Your task to perform on an android device: Open settings on Google Maps Image 0: 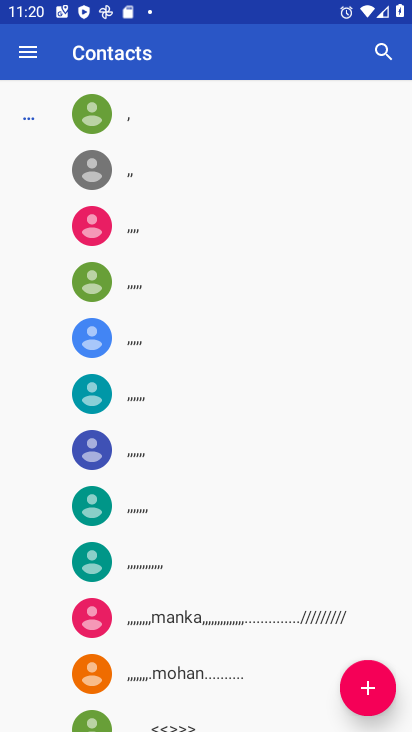
Step 0: press home button
Your task to perform on an android device: Open settings on Google Maps Image 1: 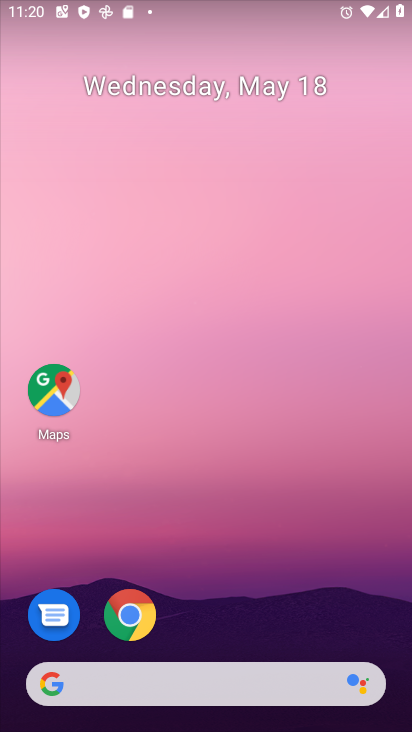
Step 1: drag from (237, 655) to (233, 239)
Your task to perform on an android device: Open settings on Google Maps Image 2: 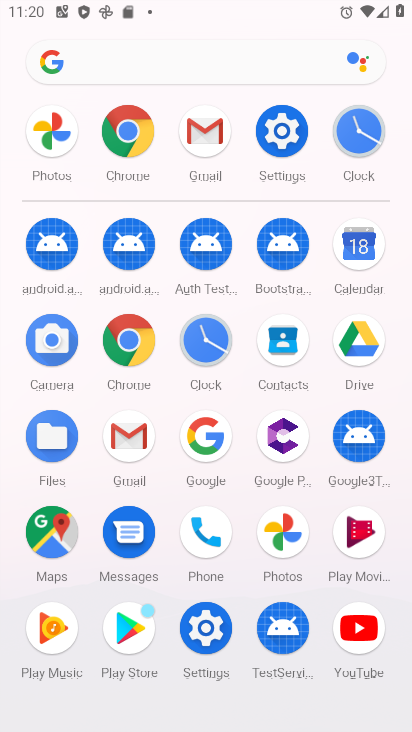
Step 2: click (292, 145)
Your task to perform on an android device: Open settings on Google Maps Image 3: 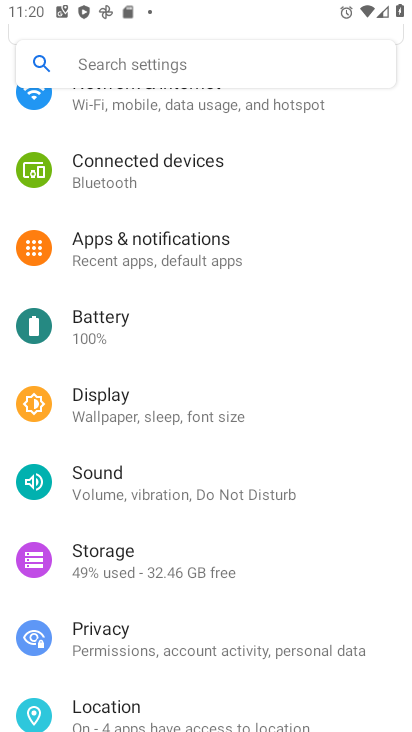
Step 3: press home button
Your task to perform on an android device: Open settings on Google Maps Image 4: 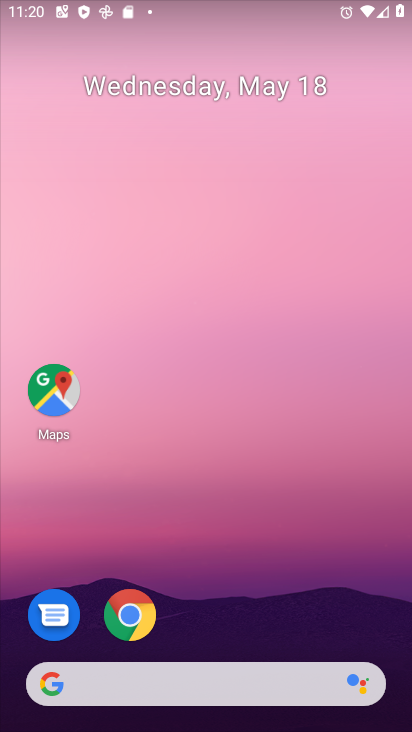
Step 4: click (66, 387)
Your task to perform on an android device: Open settings on Google Maps Image 5: 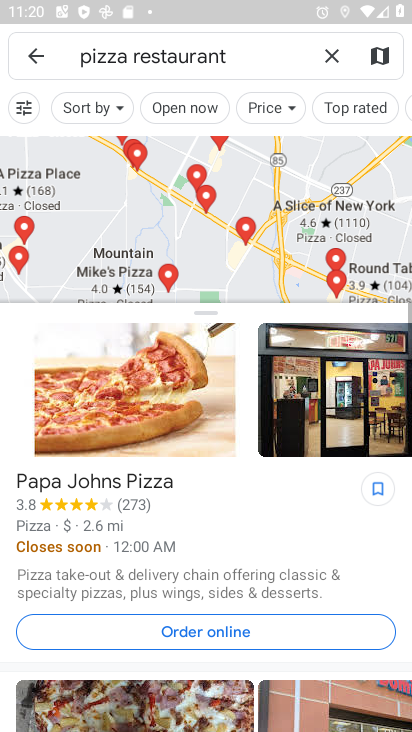
Step 5: click (28, 60)
Your task to perform on an android device: Open settings on Google Maps Image 6: 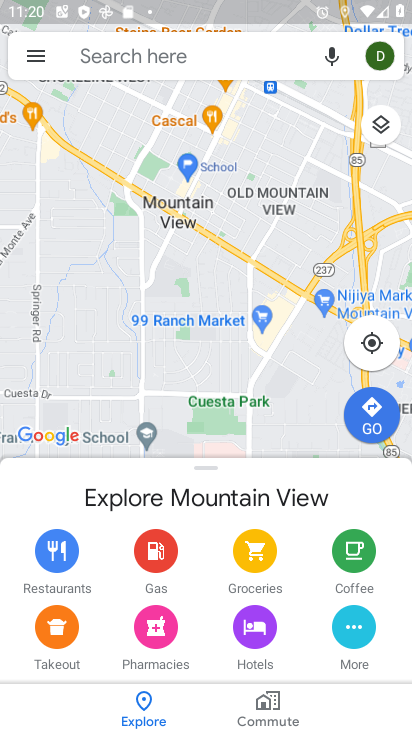
Step 6: click (30, 59)
Your task to perform on an android device: Open settings on Google Maps Image 7: 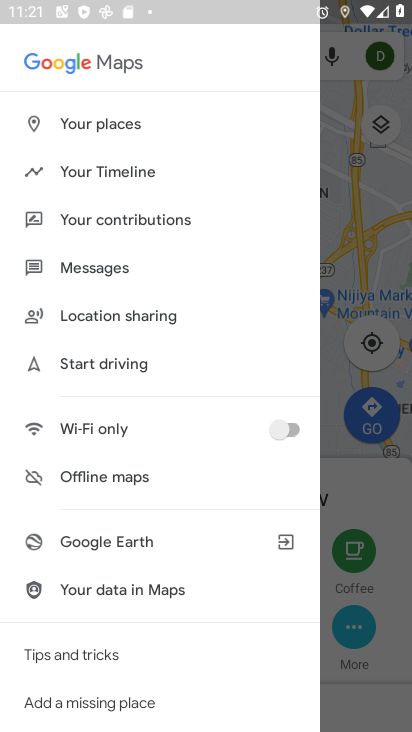
Step 7: drag from (160, 619) to (128, 272)
Your task to perform on an android device: Open settings on Google Maps Image 8: 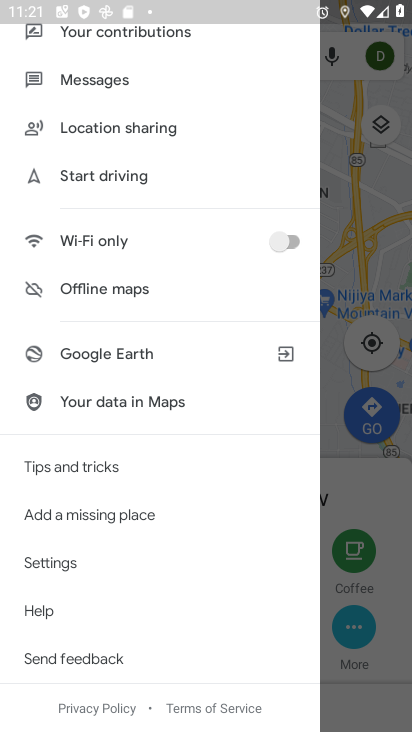
Step 8: click (70, 562)
Your task to perform on an android device: Open settings on Google Maps Image 9: 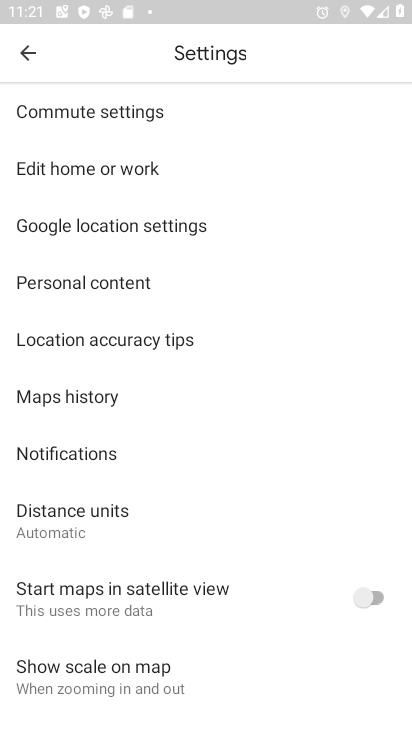
Step 9: task complete